Your task to perform on an android device: Go to privacy settings Image 0: 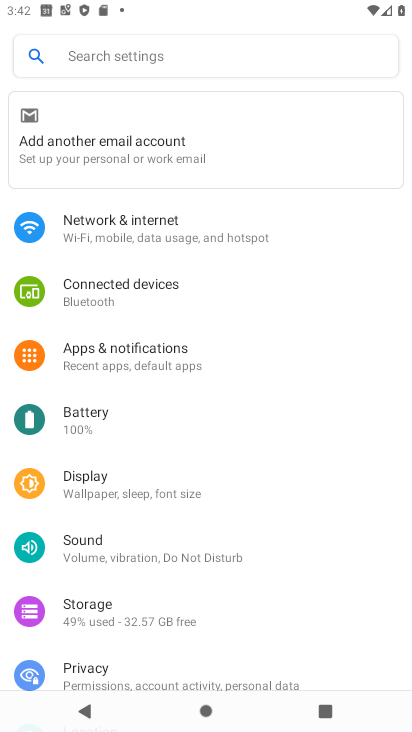
Step 0: drag from (157, 576) to (172, 174)
Your task to perform on an android device: Go to privacy settings Image 1: 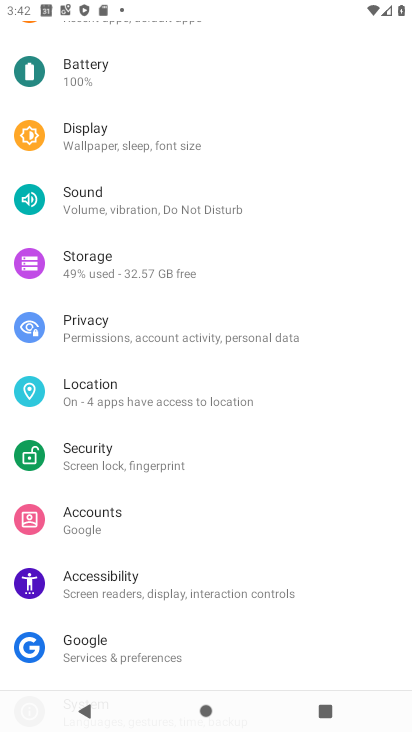
Step 1: click (167, 346)
Your task to perform on an android device: Go to privacy settings Image 2: 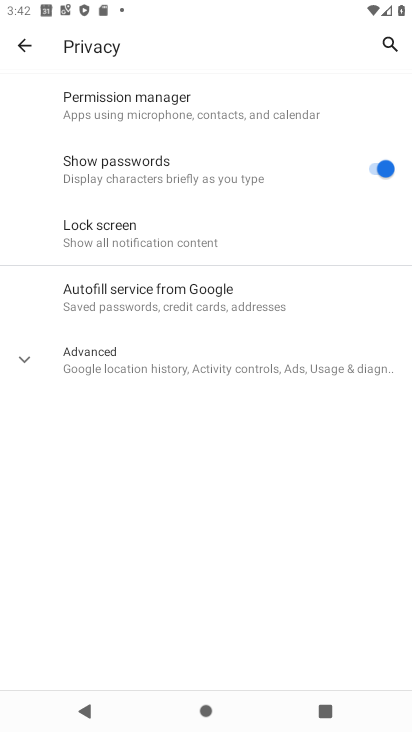
Step 2: task complete